Your task to perform on an android device: Open eBay Image 0: 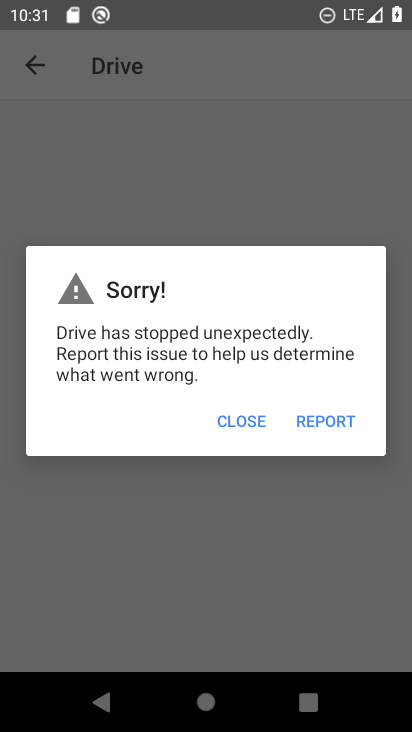
Step 0: press home button
Your task to perform on an android device: Open eBay Image 1: 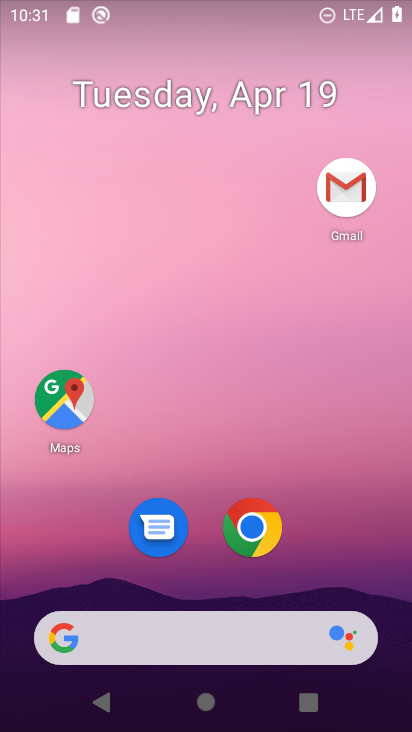
Step 1: drag from (338, 508) to (332, 48)
Your task to perform on an android device: Open eBay Image 2: 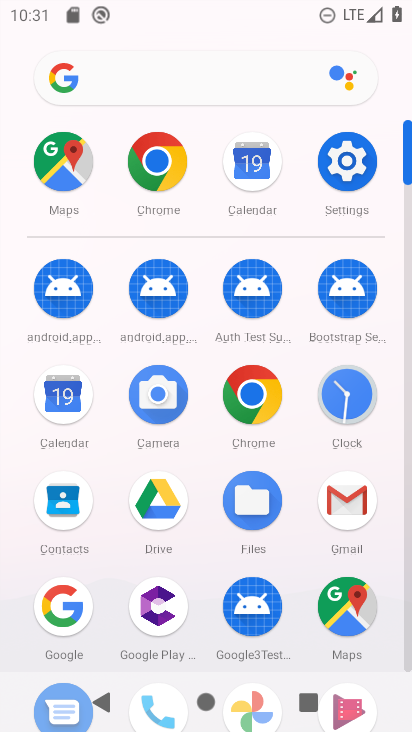
Step 2: drag from (291, 522) to (324, 246)
Your task to perform on an android device: Open eBay Image 3: 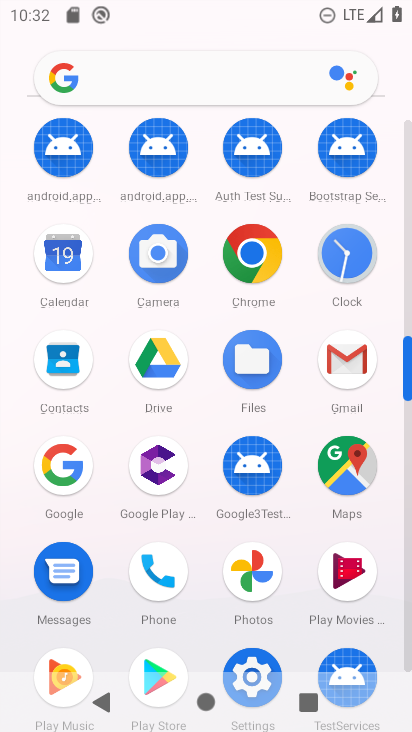
Step 3: click (252, 261)
Your task to perform on an android device: Open eBay Image 4: 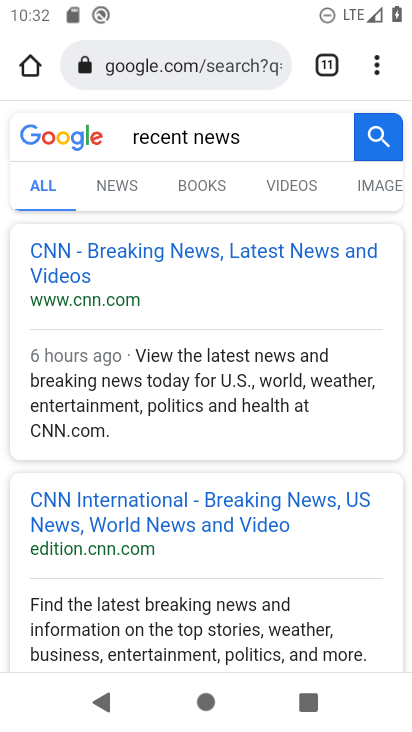
Step 4: click (224, 66)
Your task to perform on an android device: Open eBay Image 5: 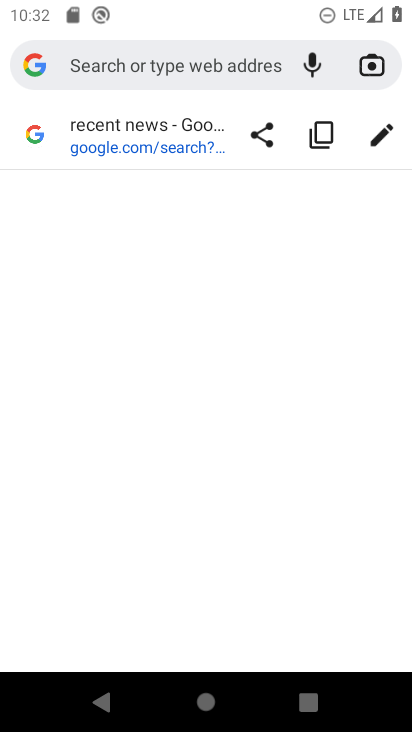
Step 5: type "ebay"
Your task to perform on an android device: Open eBay Image 6: 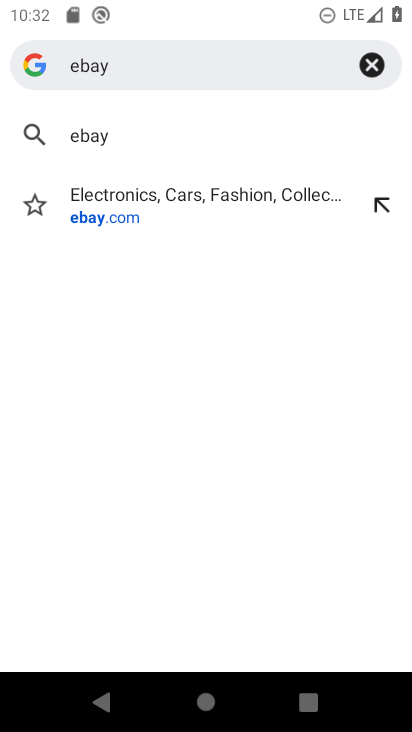
Step 6: click (84, 205)
Your task to perform on an android device: Open eBay Image 7: 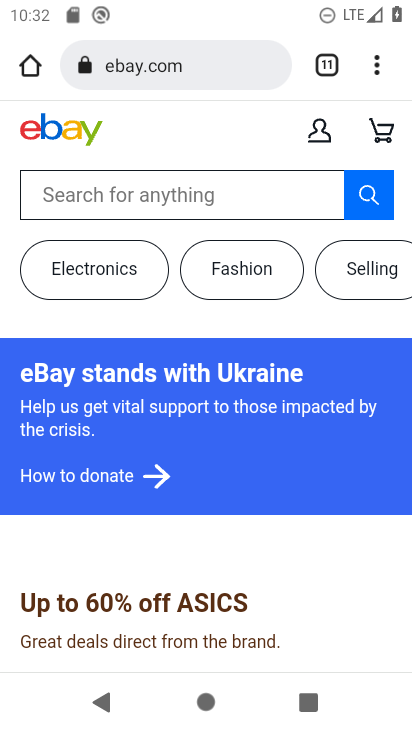
Step 7: task complete